Your task to perform on an android device: delete a single message in the gmail app Image 0: 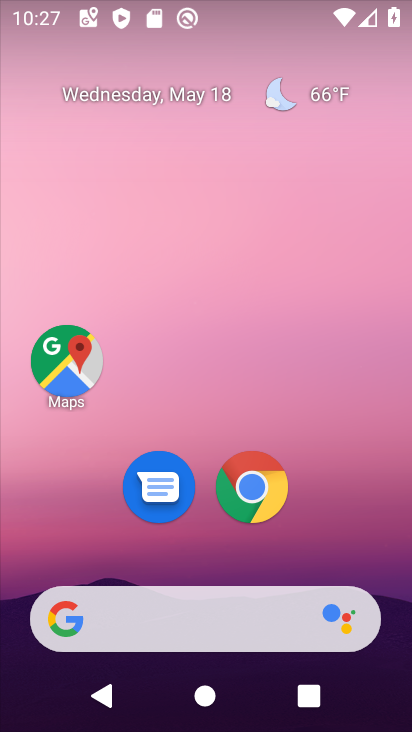
Step 0: drag from (190, 572) to (299, 30)
Your task to perform on an android device: delete a single message in the gmail app Image 1: 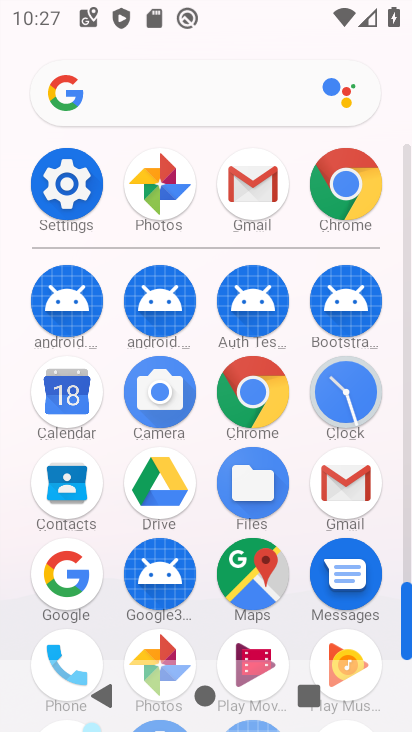
Step 1: click (341, 477)
Your task to perform on an android device: delete a single message in the gmail app Image 2: 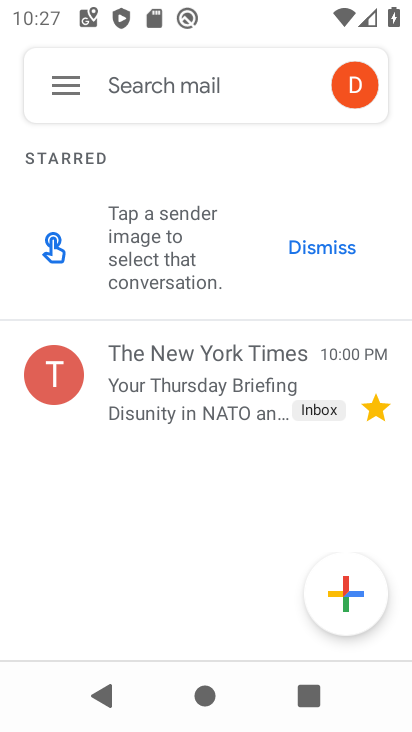
Step 2: click (67, 83)
Your task to perform on an android device: delete a single message in the gmail app Image 3: 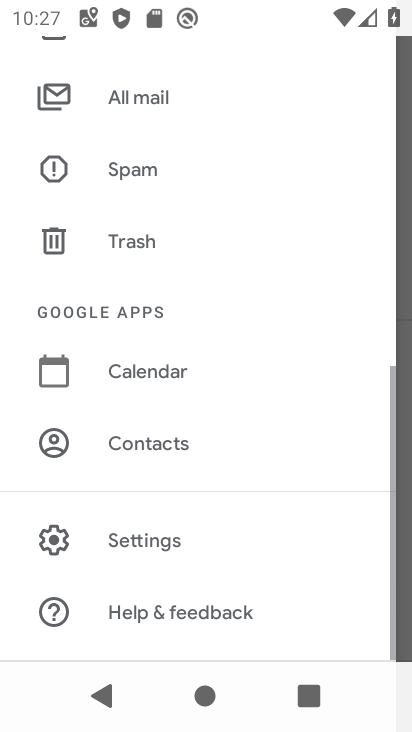
Step 3: drag from (117, 106) to (88, 595)
Your task to perform on an android device: delete a single message in the gmail app Image 4: 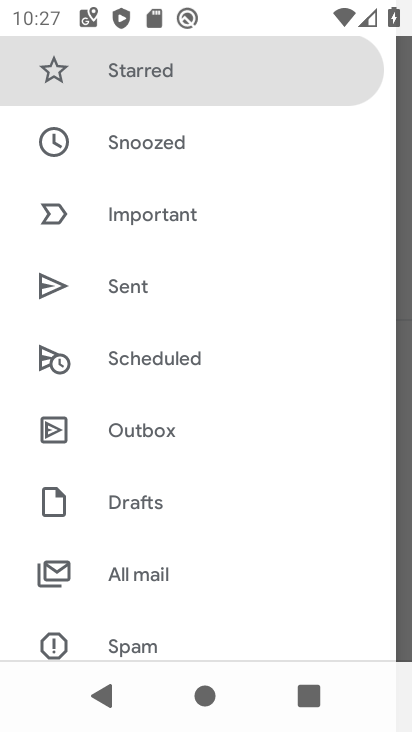
Step 4: drag from (148, 117) to (151, 597)
Your task to perform on an android device: delete a single message in the gmail app Image 5: 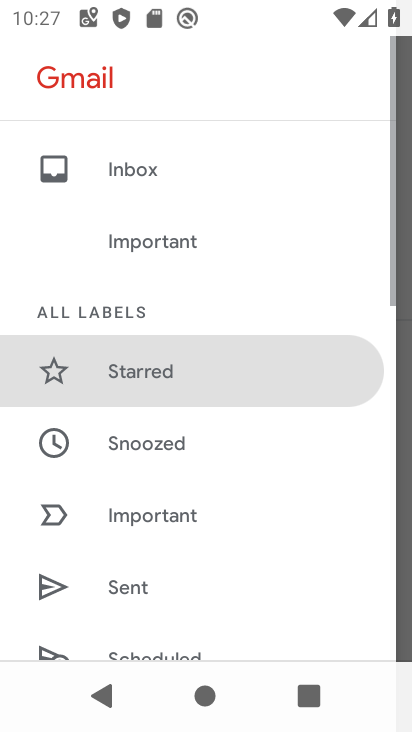
Step 5: click (146, 176)
Your task to perform on an android device: delete a single message in the gmail app Image 6: 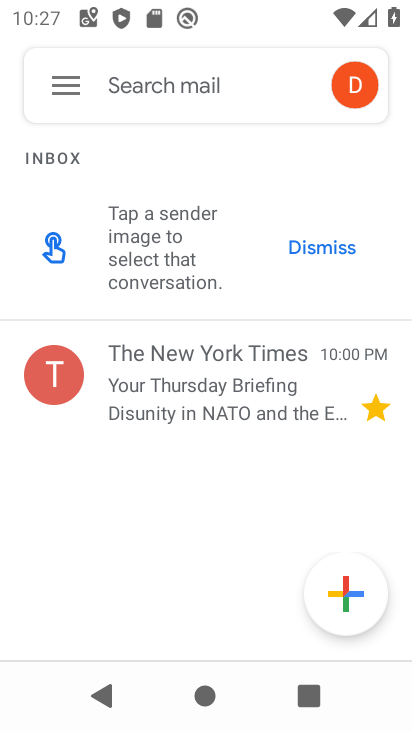
Step 6: click (185, 356)
Your task to perform on an android device: delete a single message in the gmail app Image 7: 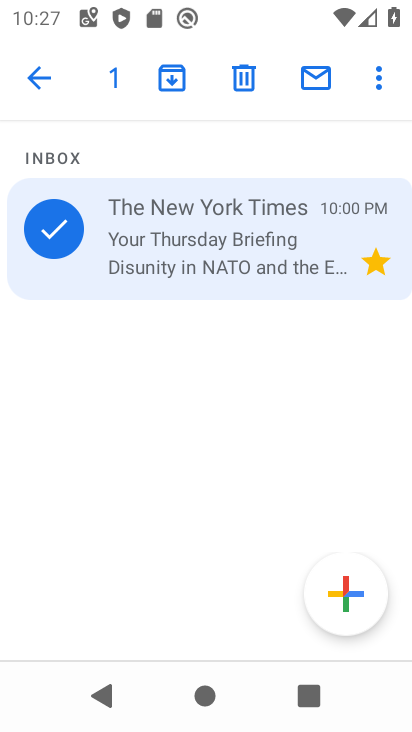
Step 7: click (230, 75)
Your task to perform on an android device: delete a single message in the gmail app Image 8: 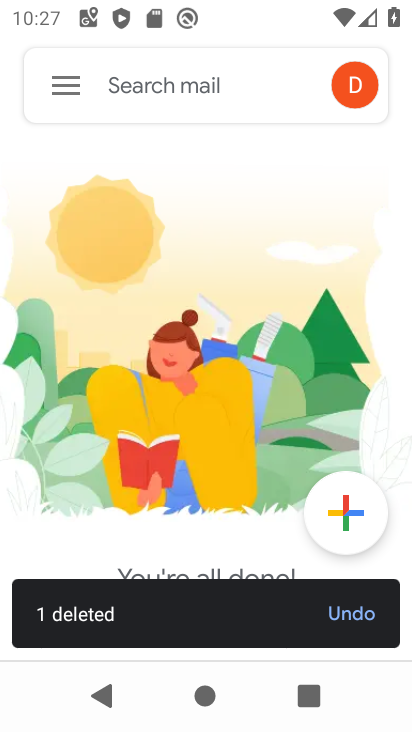
Step 8: task complete